Your task to perform on an android device: turn on the 24-hour format for clock Image 0: 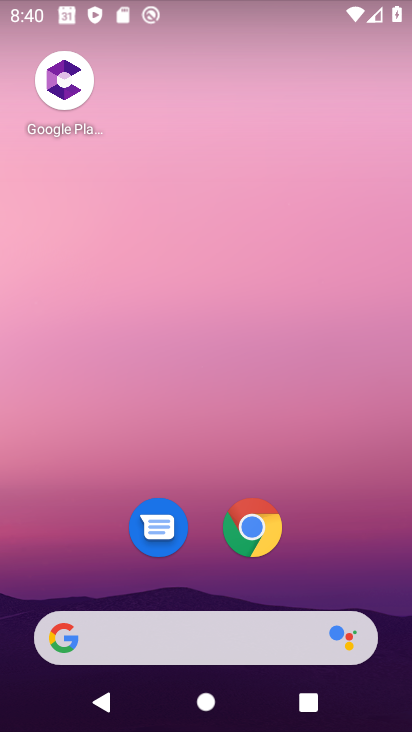
Step 0: drag from (226, 584) to (217, 4)
Your task to perform on an android device: turn on the 24-hour format for clock Image 1: 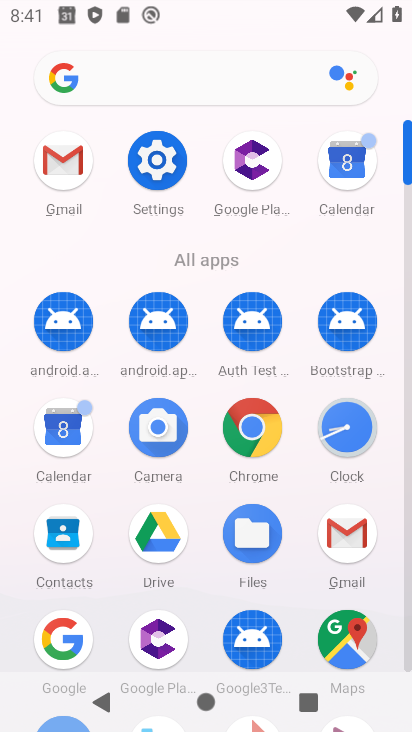
Step 1: click (334, 427)
Your task to perform on an android device: turn on the 24-hour format for clock Image 2: 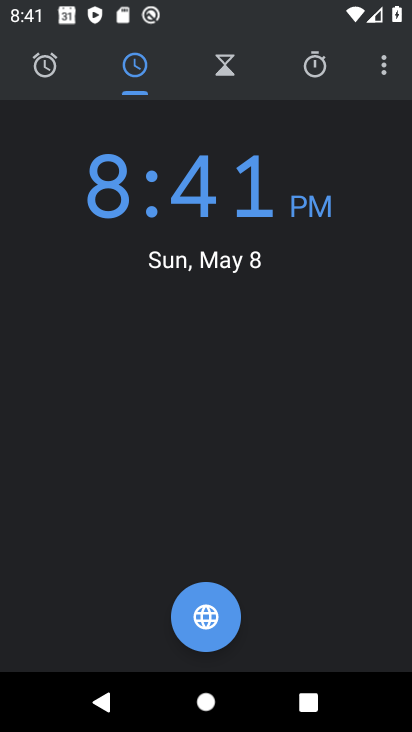
Step 2: click (378, 66)
Your task to perform on an android device: turn on the 24-hour format for clock Image 3: 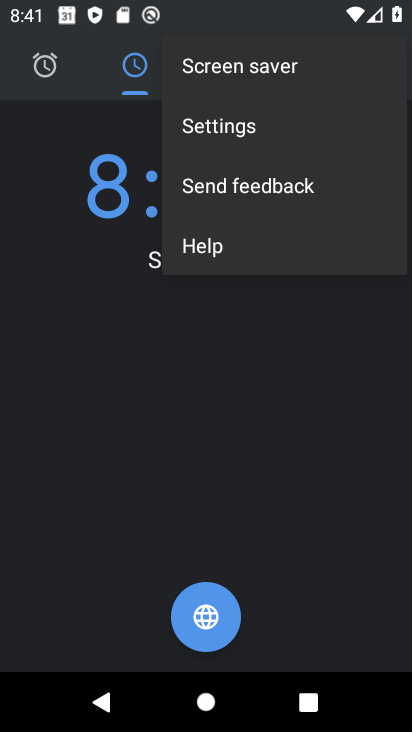
Step 3: click (207, 121)
Your task to perform on an android device: turn on the 24-hour format for clock Image 4: 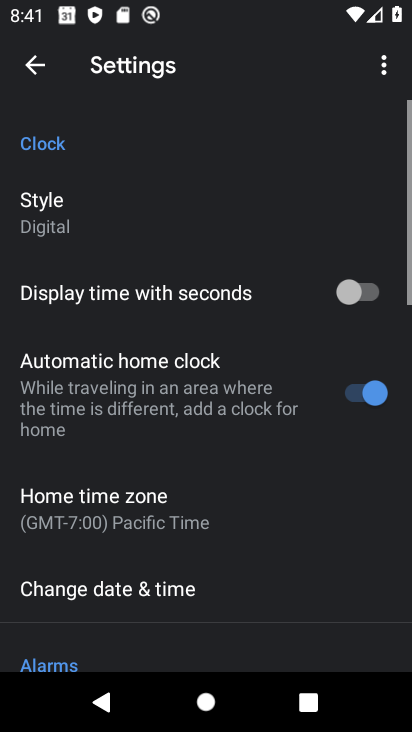
Step 4: drag from (213, 549) to (233, 431)
Your task to perform on an android device: turn on the 24-hour format for clock Image 5: 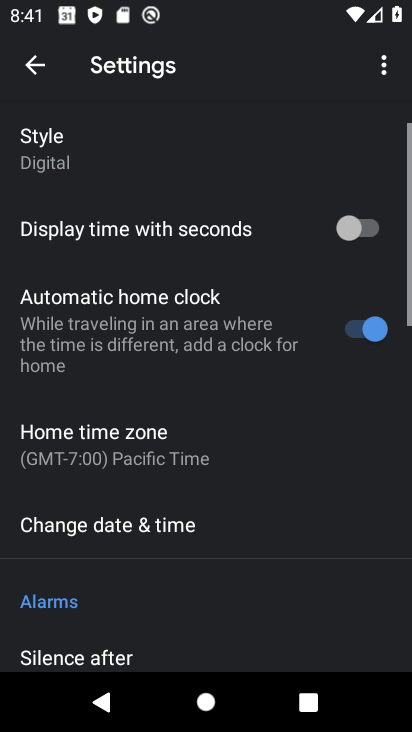
Step 5: click (137, 537)
Your task to perform on an android device: turn on the 24-hour format for clock Image 6: 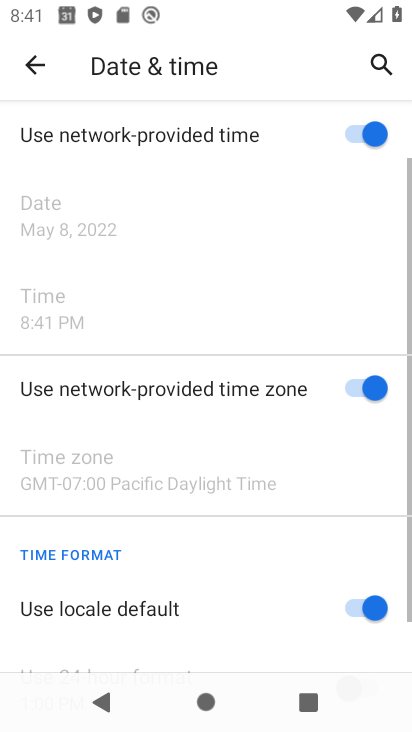
Step 6: drag from (207, 523) to (171, 81)
Your task to perform on an android device: turn on the 24-hour format for clock Image 7: 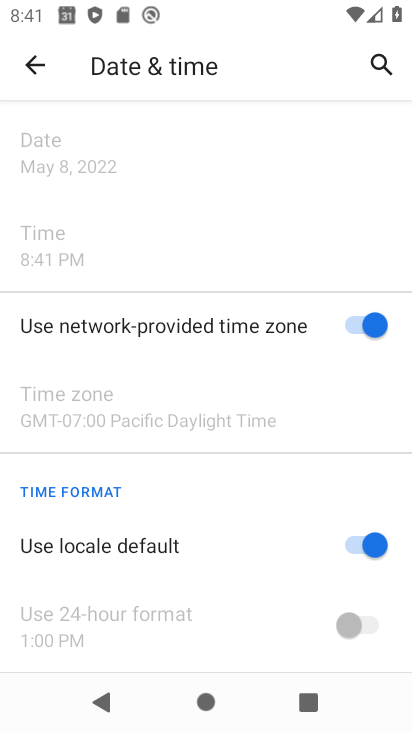
Step 7: drag from (174, 224) to (199, 184)
Your task to perform on an android device: turn on the 24-hour format for clock Image 8: 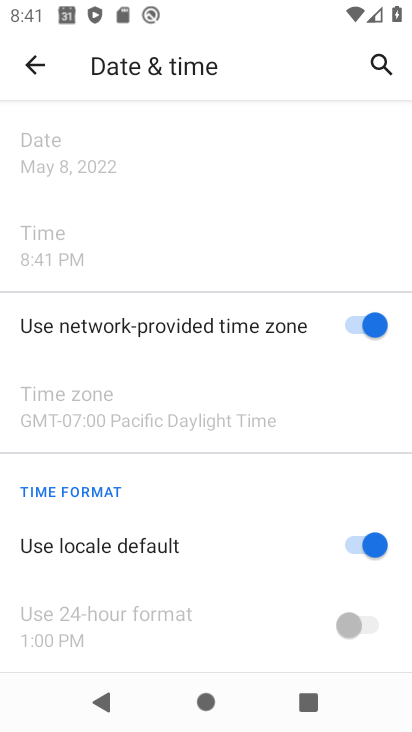
Step 8: click (378, 545)
Your task to perform on an android device: turn on the 24-hour format for clock Image 9: 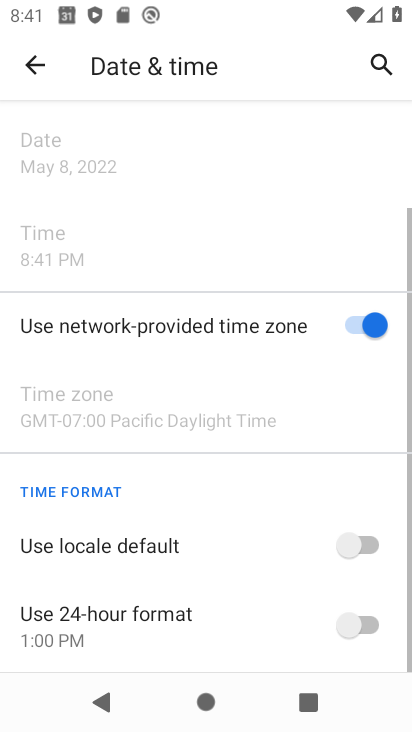
Step 9: click (360, 628)
Your task to perform on an android device: turn on the 24-hour format for clock Image 10: 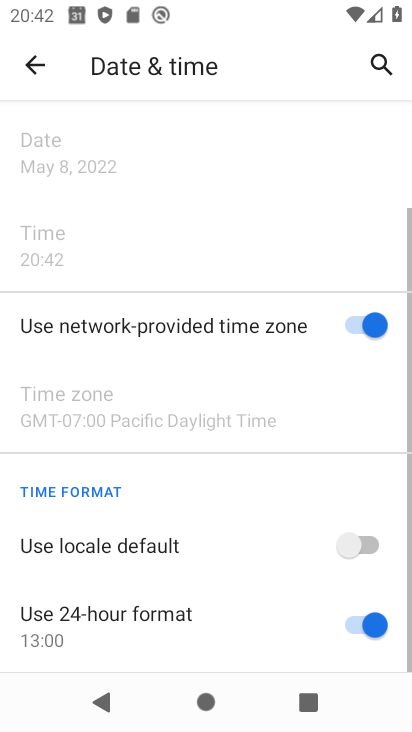
Step 10: task complete